Your task to perform on an android device: Open display settings Image 0: 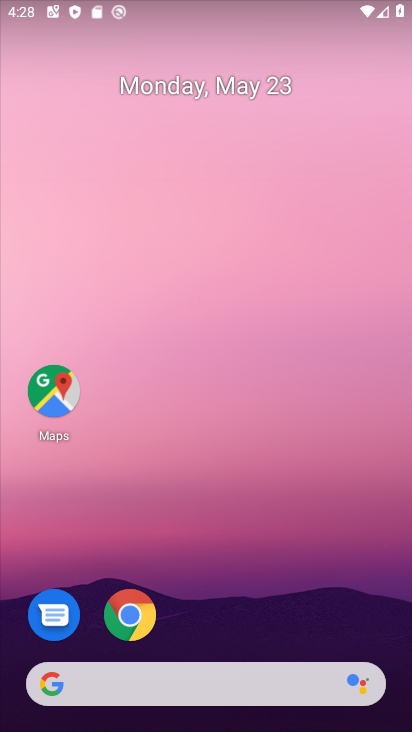
Step 0: drag from (267, 585) to (303, 0)
Your task to perform on an android device: Open display settings Image 1: 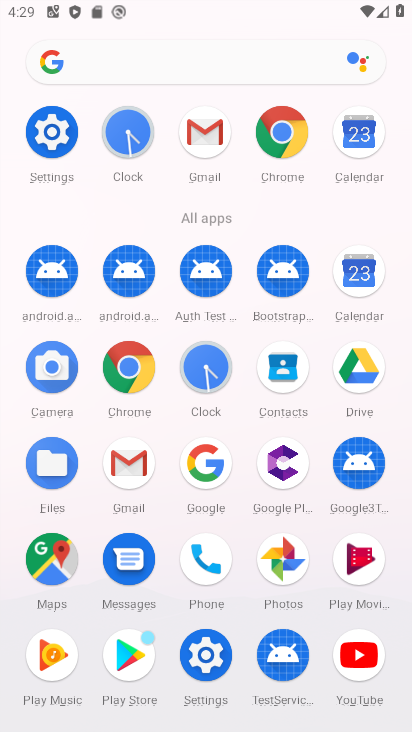
Step 1: click (55, 130)
Your task to perform on an android device: Open display settings Image 2: 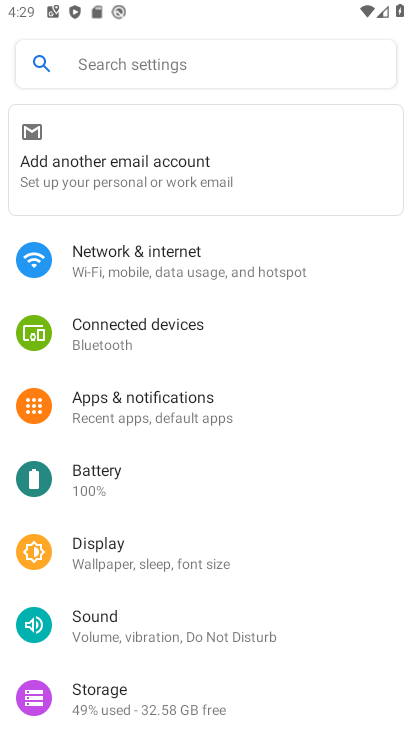
Step 2: click (138, 558)
Your task to perform on an android device: Open display settings Image 3: 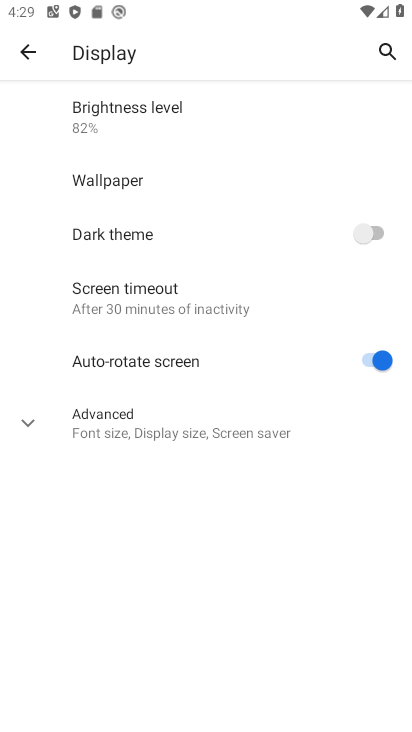
Step 3: task complete